Your task to perform on an android device: Open the web browser Image 0: 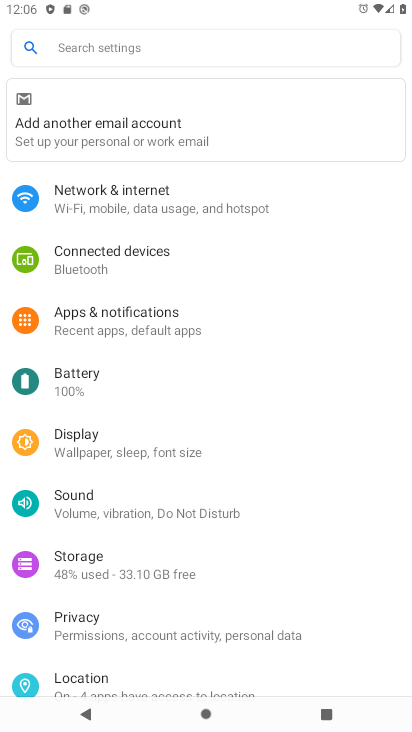
Step 0: press back button
Your task to perform on an android device: Open the web browser Image 1: 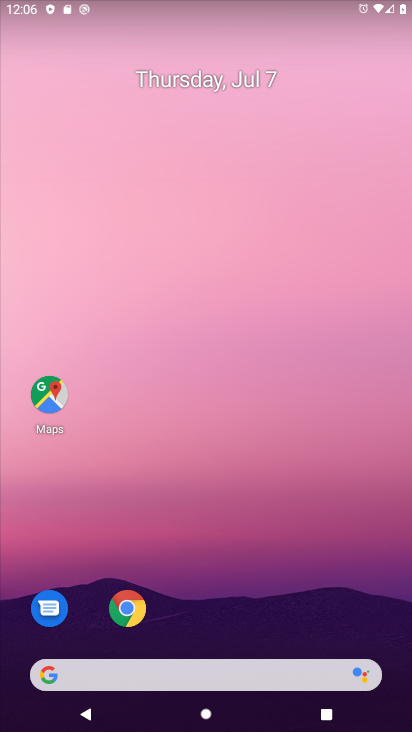
Step 1: drag from (263, 641) to (245, 368)
Your task to perform on an android device: Open the web browser Image 2: 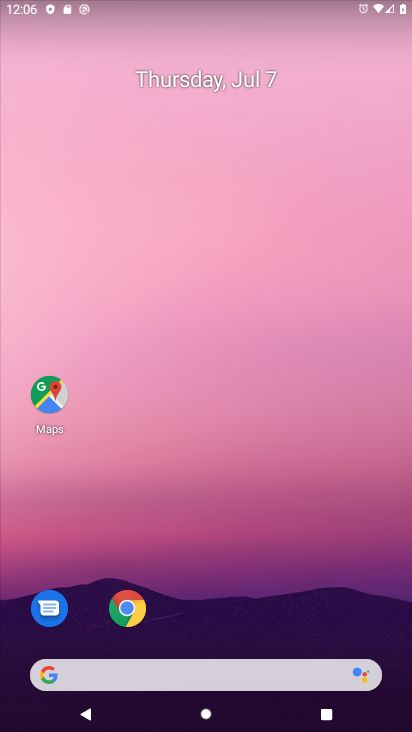
Step 2: drag from (184, 637) to (244, 137)
Your task to perform on an android device: Open the web browser Image 3: 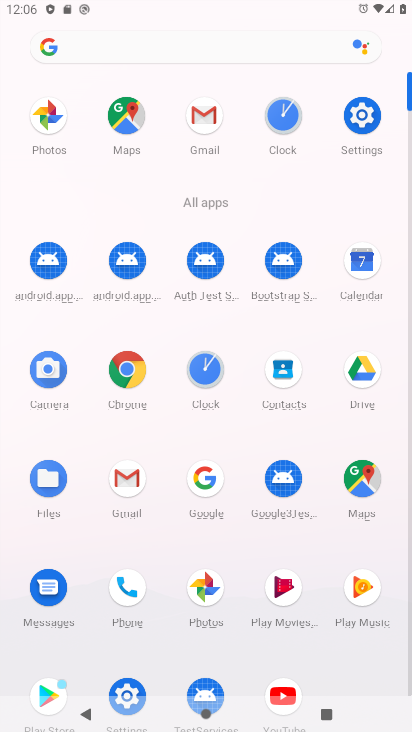
Step 3: click (135, 385)
Your task to perform on an android device: Open the web browser Image 4: 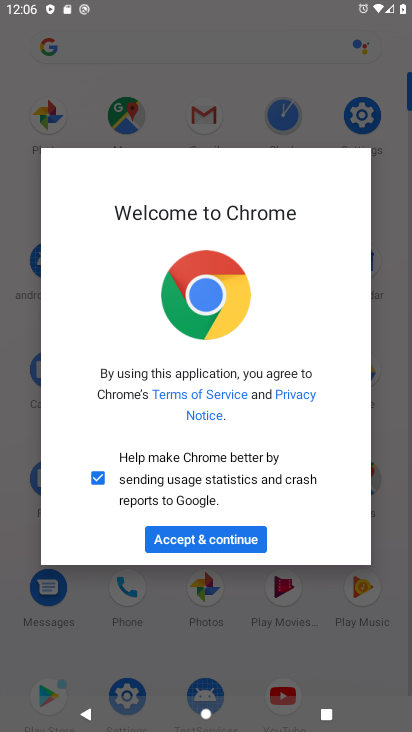
Step 4: click (208, 534)
Your task to perform on an android device: Open the web browser Image 5: 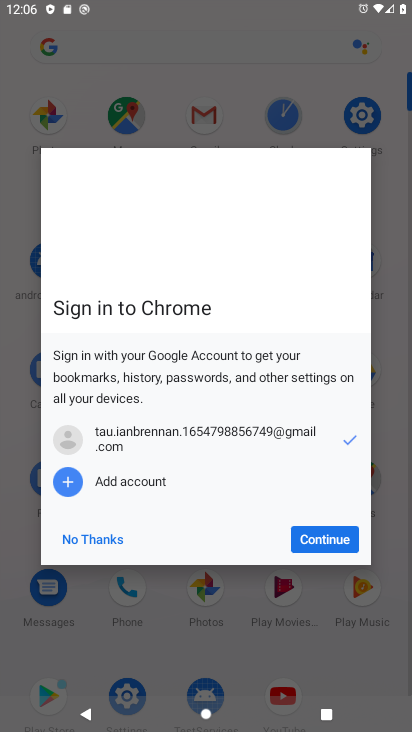
Step 5: click (332, 537)
Your task to perform on an android device: Open the web browser Image 6: 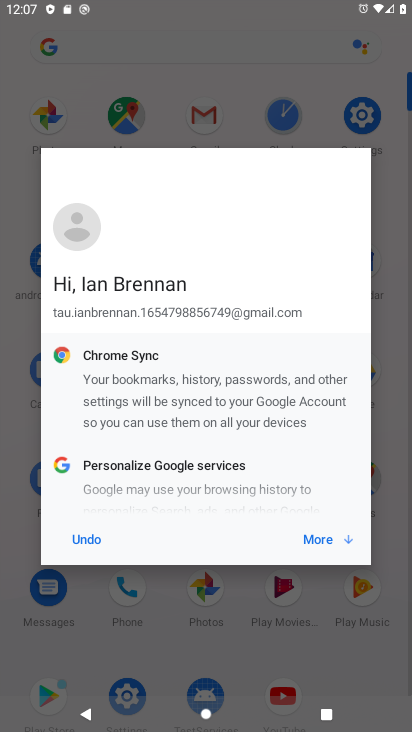
Step 6: click (320, 539)
Your task to perform on an android device: Open the web browser Image 7: 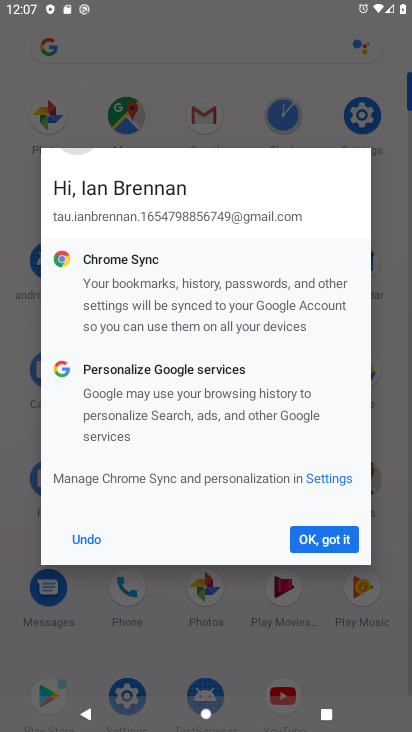
Step 7: click (300, 543)
Your task to perform on an android device: Open the web browser Image 8: 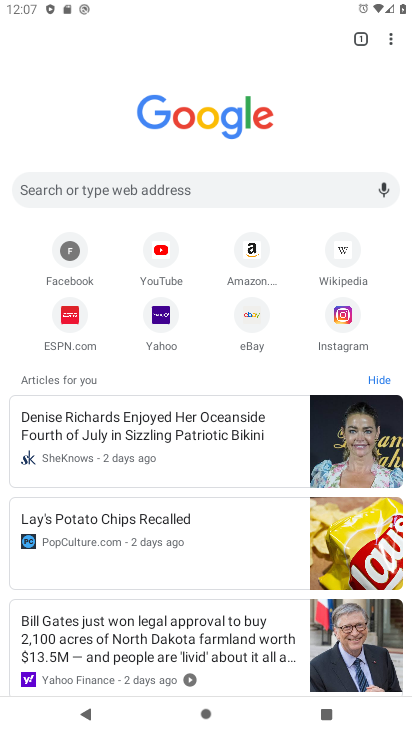
Step 8: task complete